Your task to perform on an android device: Open Google Maps Image 0: 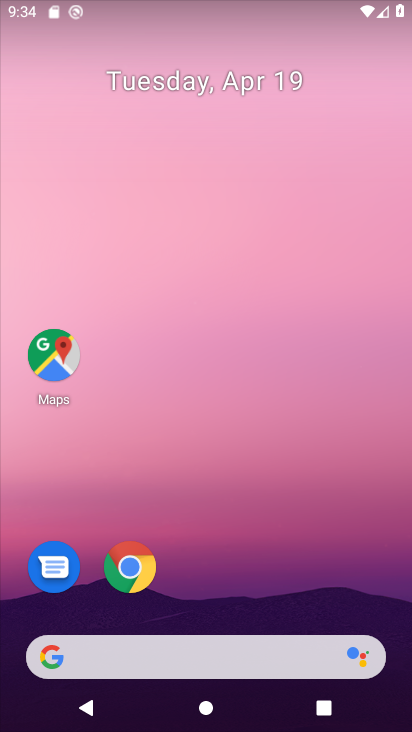
Step 0: click (61, 356)
Your task to perform on an android device: Open Google Maps Image 1: 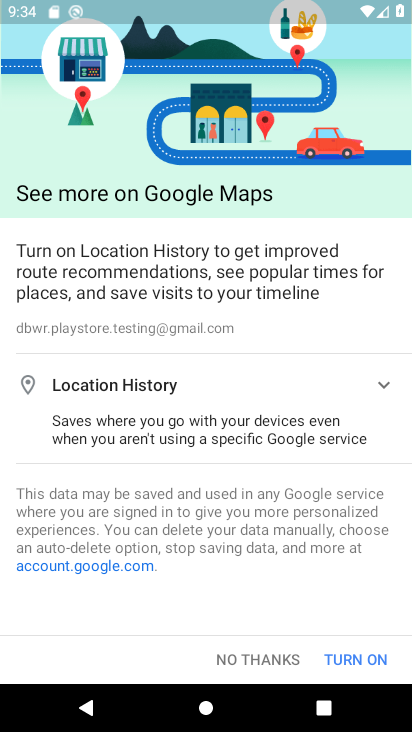
Step 1: click (261, 661)
Your task to perform on an android device: Open Google Maps Image 2: 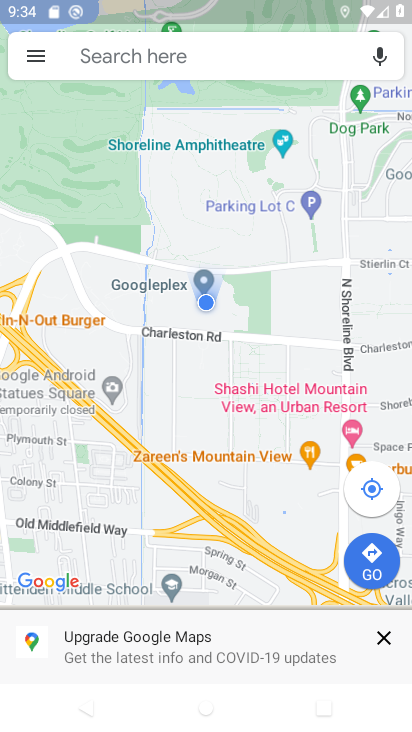
Step 2: task complete